Your task to perform on an android device: What's the weather today? Image 0: 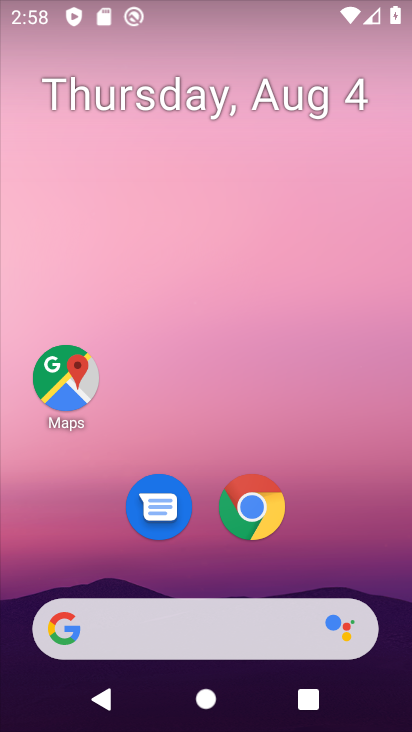
Step 0: click (178, 629)
Your task to perform on an android device: What's the weather today? Image 1: 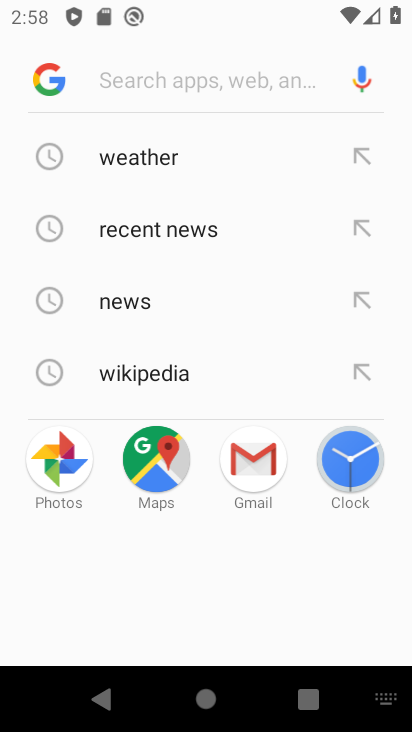
Step 1: type "What's the weather today?"
Your task to perform on an android device: What's the weather today? Image 2: 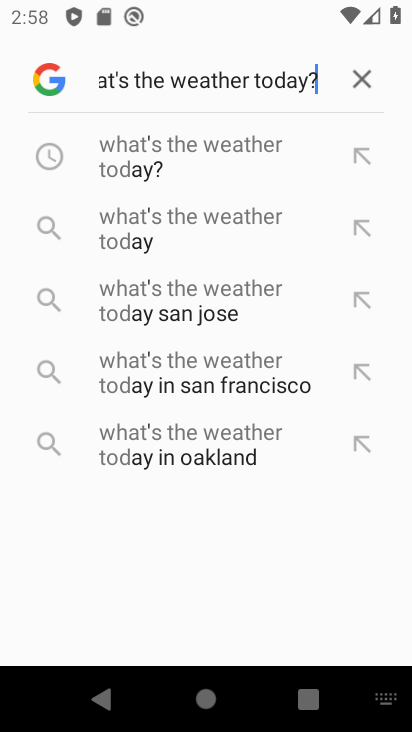
Step 2: type ""
Your task to perform on an android device: What's the weather today? Image 3: 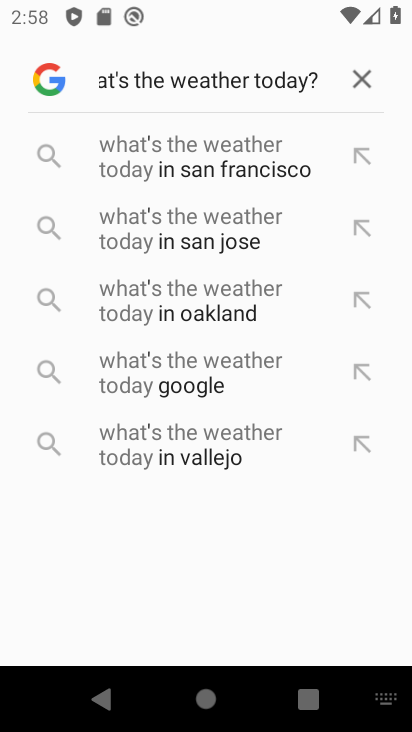
Step 3: task complete